Your task to perform on an android device: turn on improve location accuracy Image 0: 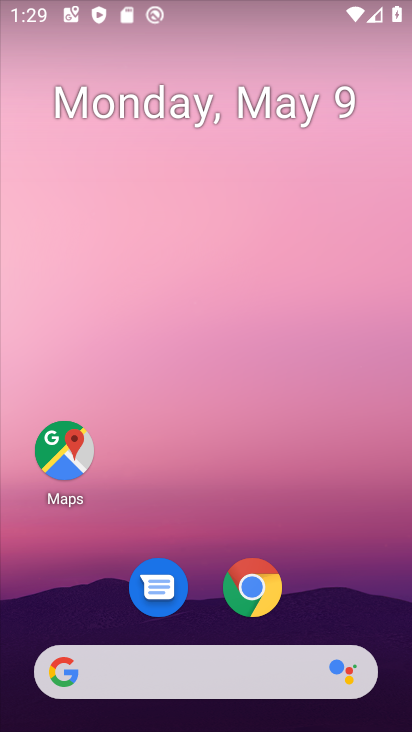
Step 0: drag from (303, 635) to (303, 231)
Your task to perform on an android device: turn on improve location accuracy Image 1: 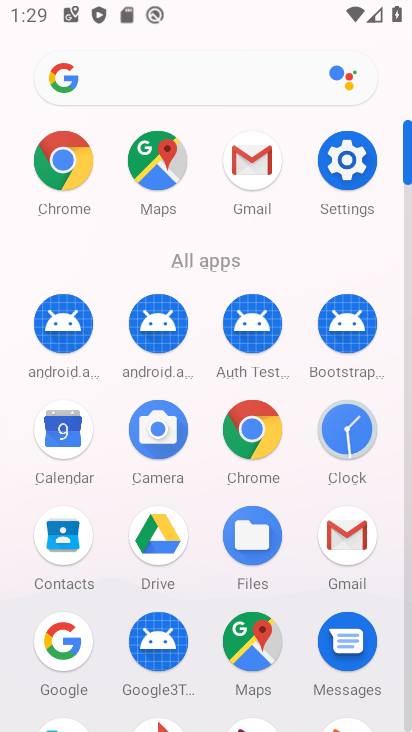
Step 1: click (341, 178)
Your task to perform on an android device: turn on improve location accuracy Image 2: 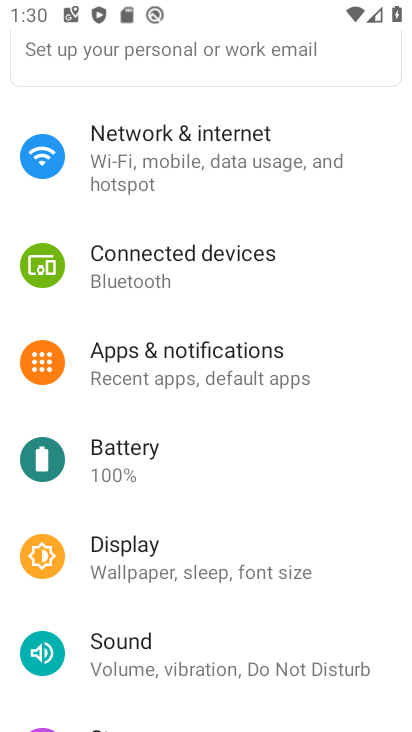
Step 2: drag from (237, 614) to (356, 202)
Your task to perform on an android device: turn on improve location accuracy Image 3: 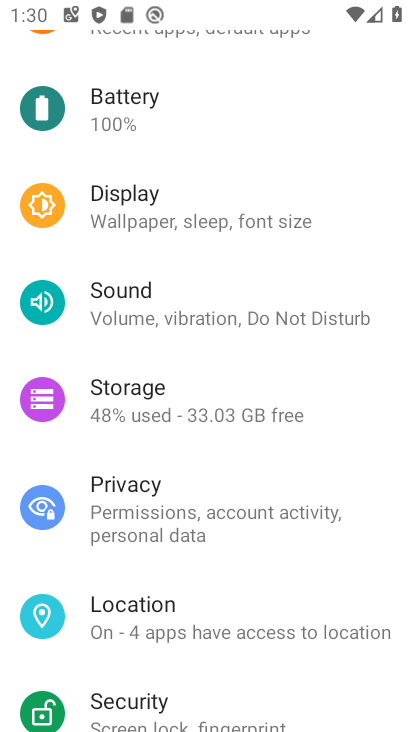
Step 3: click (176, 615)
Your task to perform on an android device: turn on improve location accuracy Image 4: 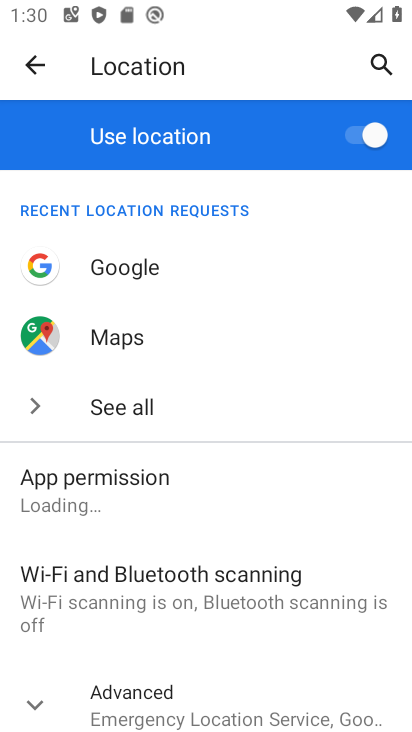
Step 4: click (190, 697)
Your task to perform on an android device: turn on improve location accuracy Image 5: 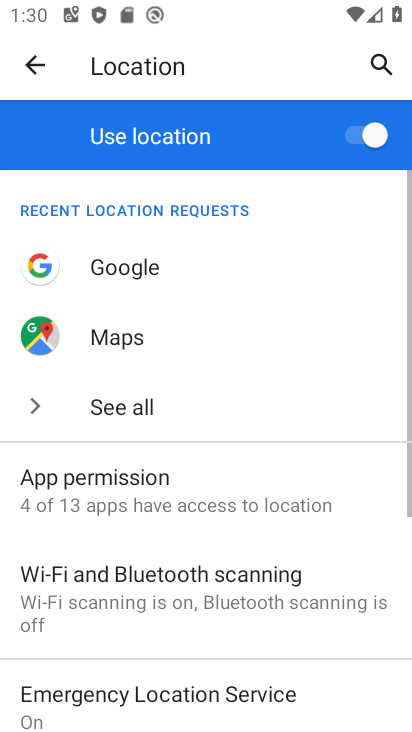
Step 5: drag from (190, 697) to (307, 376)
Your task to perform on an android device: turn on improve location accuracy Image 6: 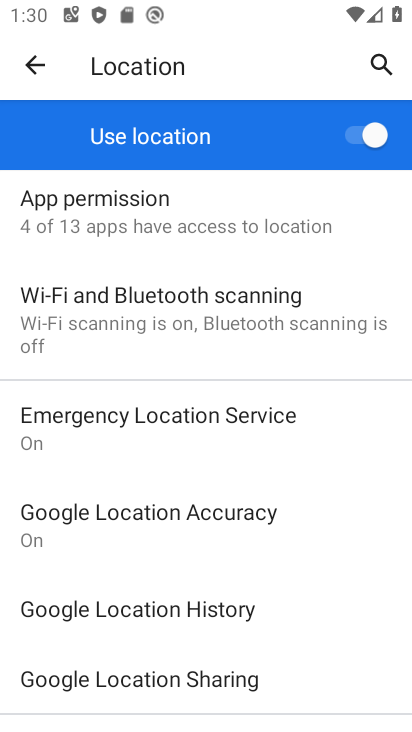
Step 6: click (254, 549)
Your task to perform on an android device: turn on improve location accuracy Image 7: 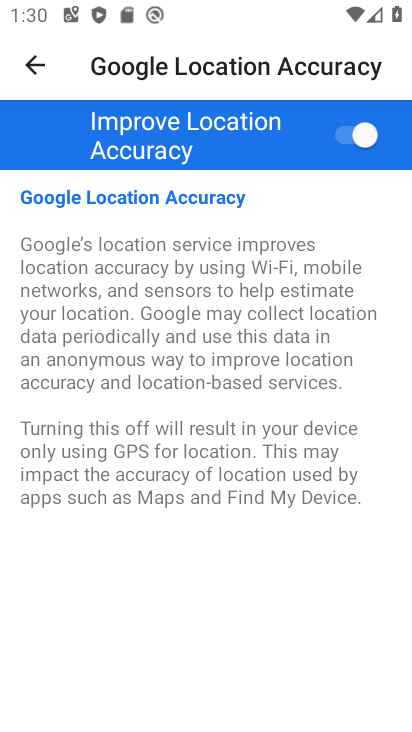
Step 7: task complete